Your task to perform on an android device: Open sound settings Image 0: 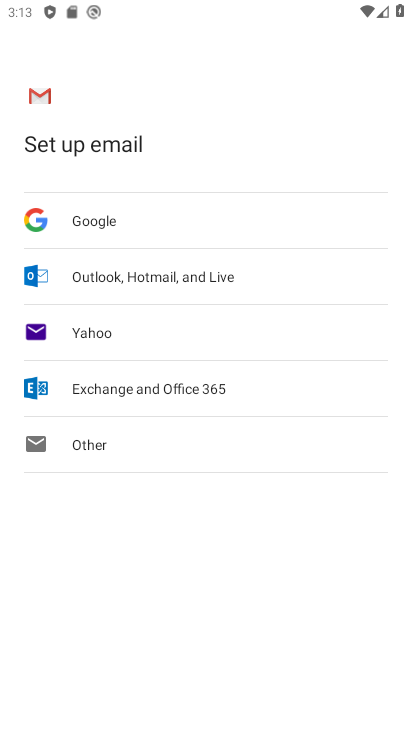
Step 0: press home button
Your task to perform on an android device: Open sound settings Image 1: 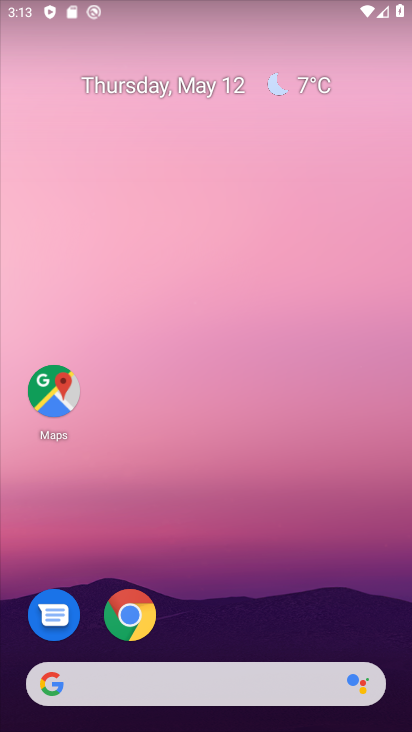
Step 1: drag from (243, 599) to (240, 47)
Your task to perform on an android device: Open sound settings Image 2: 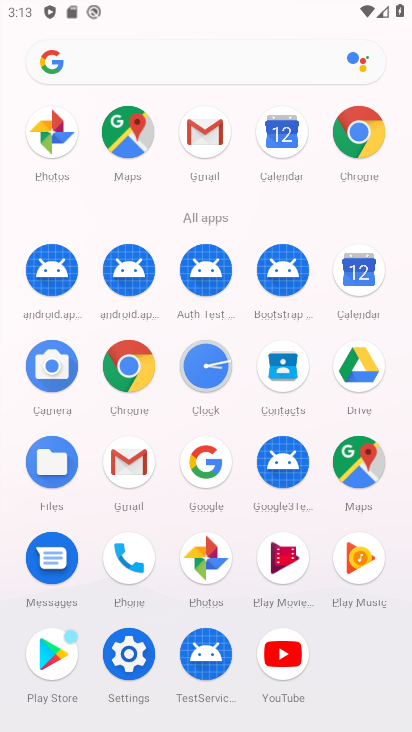
Step 2: click (132, 639)
Your task to perform on an android device: Open sound settings Image 3: 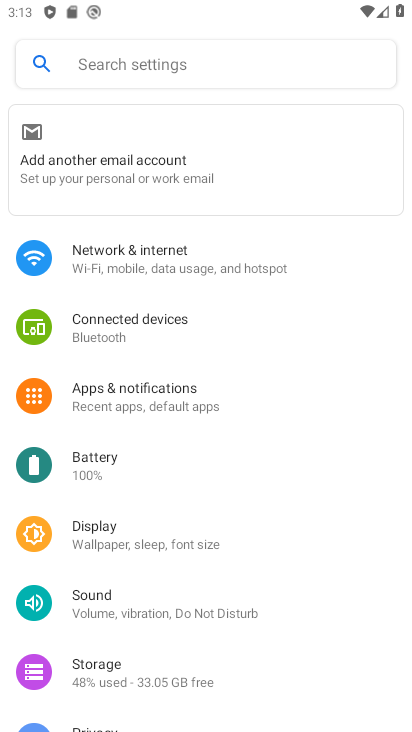
Step 3: click (123, 610)
Your task to perform on an android device: Open sound settings Image 4: 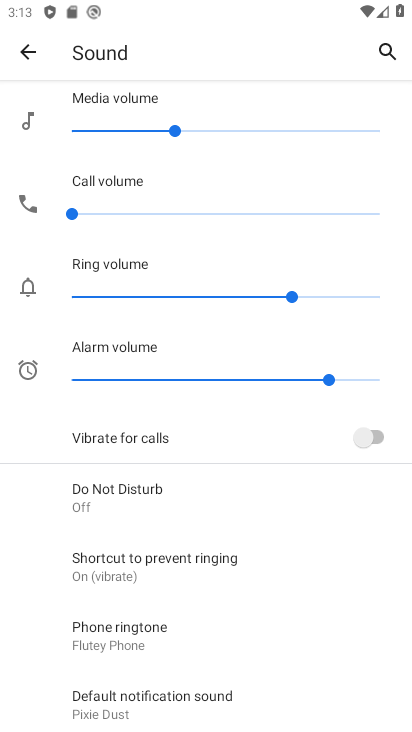
Step 4: task complete